Your task to perform on an android device: Search for seafood restaurants on Google Maps Image 0: 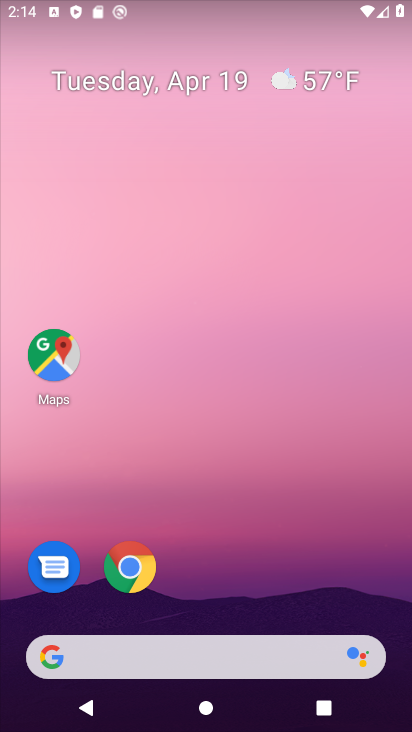
Step 0: click (56, 358)
Your task to perform on an android device: Search for seafood restaurants on Google Maps Image 1: 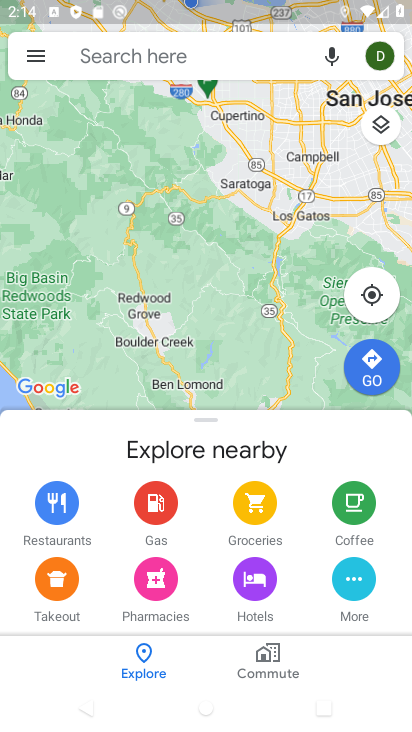
Step 1: click (121, 55)
Your task to perform on an android device: Search for seafood restaurants on Google Maps Image 2: 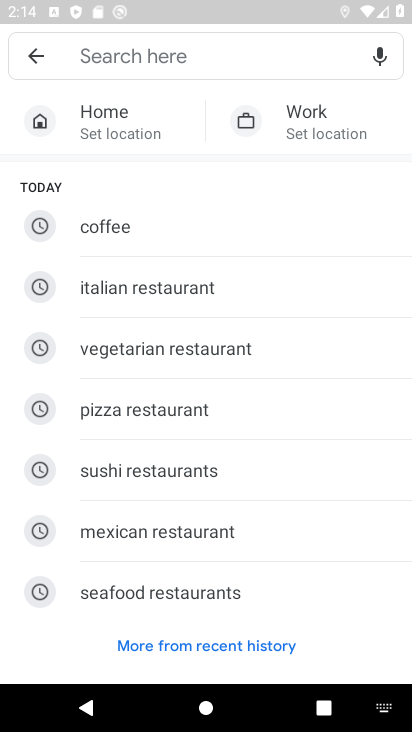
Step 2: type "seafood restaurants"
Your task to perform on an android device: Search for seafood restaurants on Google Maps Image 3: 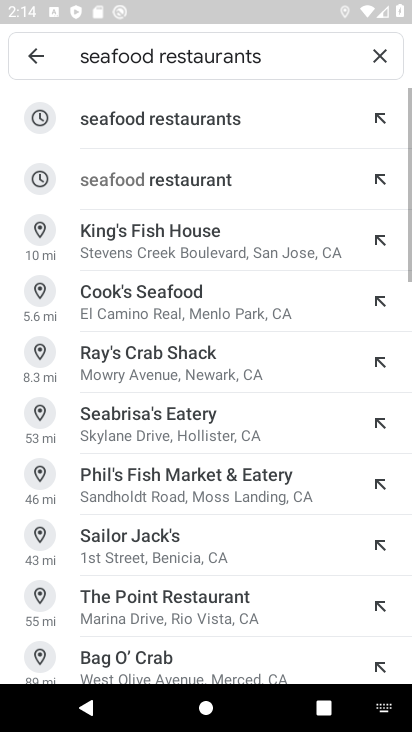
Step 3: click (142, 107)
Your task to perform on an android device: Search for seafood restaurants on Google Maps Image 4: 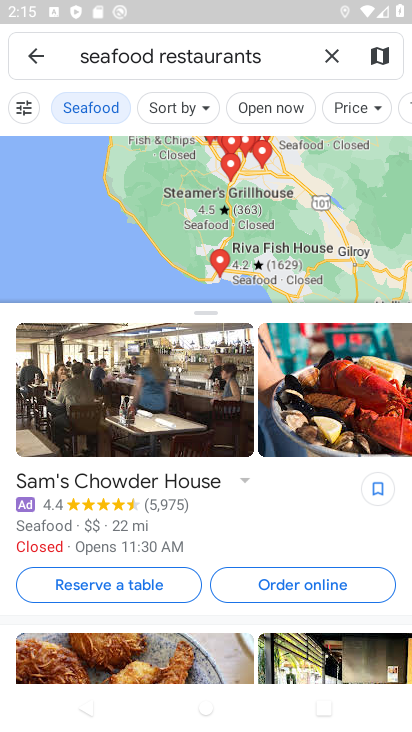
Step 4: task complete